Your task to perform on an android device: open app "Messages" (install if not already installed) Image 0: 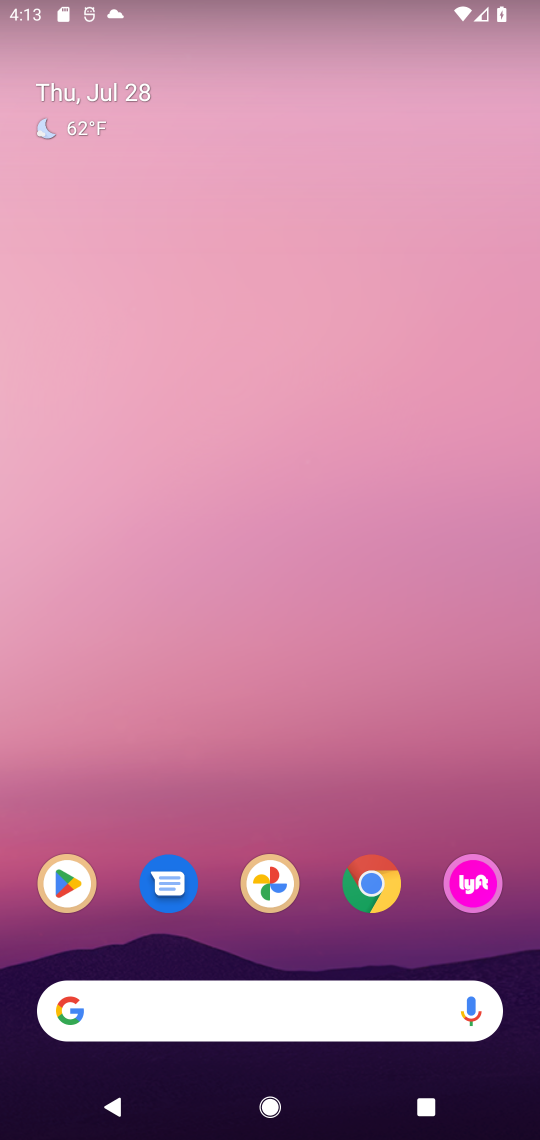
Step 0: drag from (307, 975) to (183, 156)
Your task to perform on an android device: open app "Messages" (install if not already installed) Image 1: 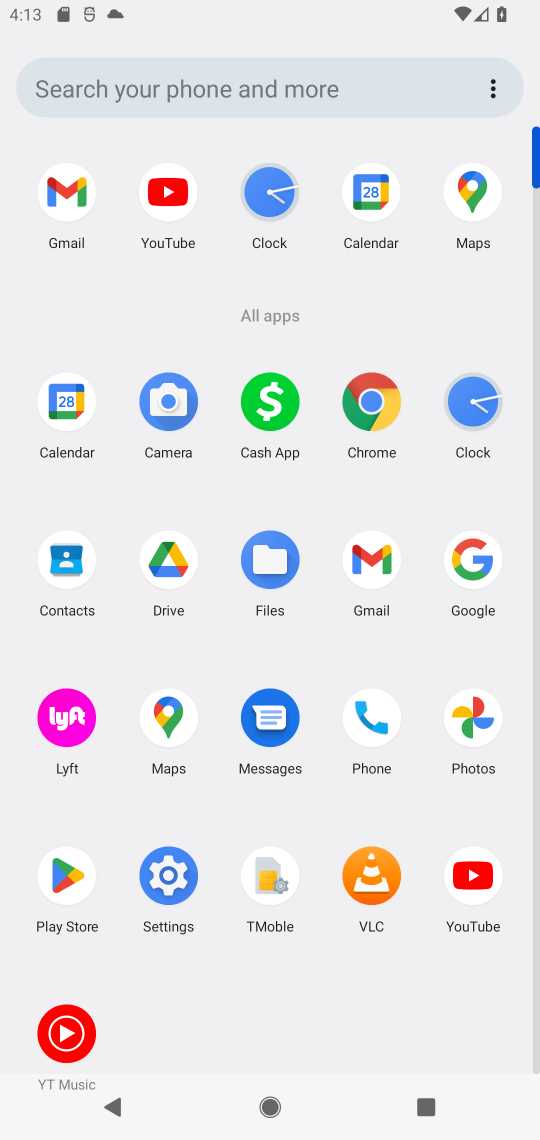
Step 1: click (291, 725)
Your task to perform on an android device: open app "Messages" (install if not already installed) Image 2: 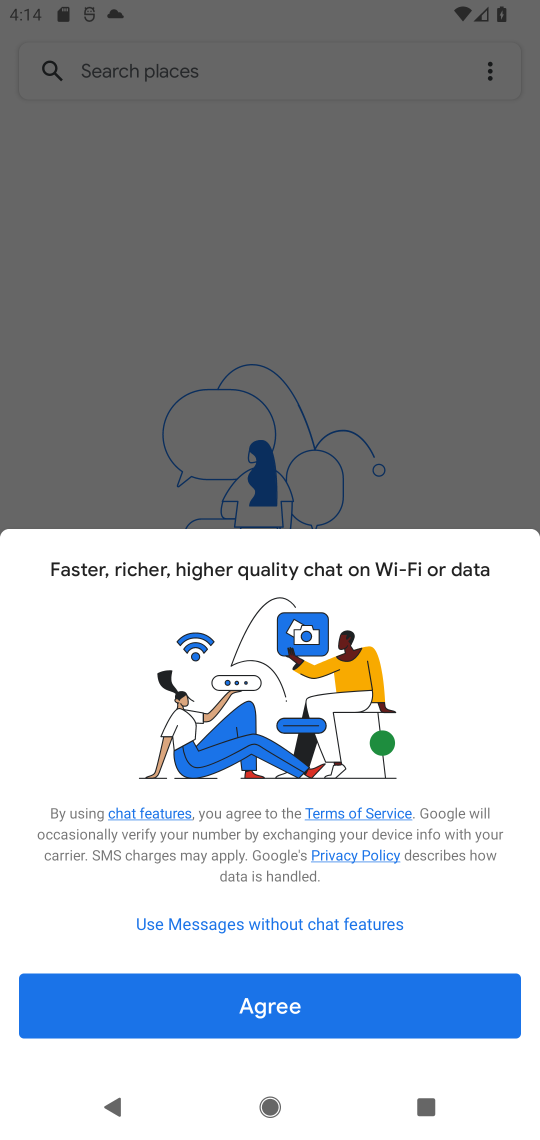
Step 2: click (299, 1024)
Your task to perform on an android device: open app "Messages" (install if not already installed) Image 3: 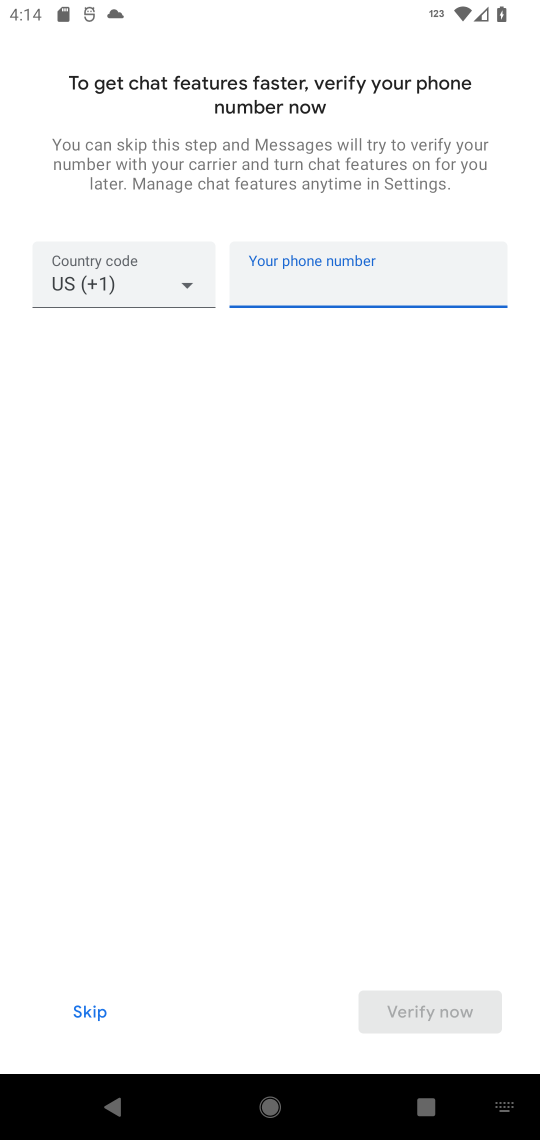
Step 3: click (93, 1009)
Your task to perform on an android device: open app "Messages" (install if not already installed) Image 4: 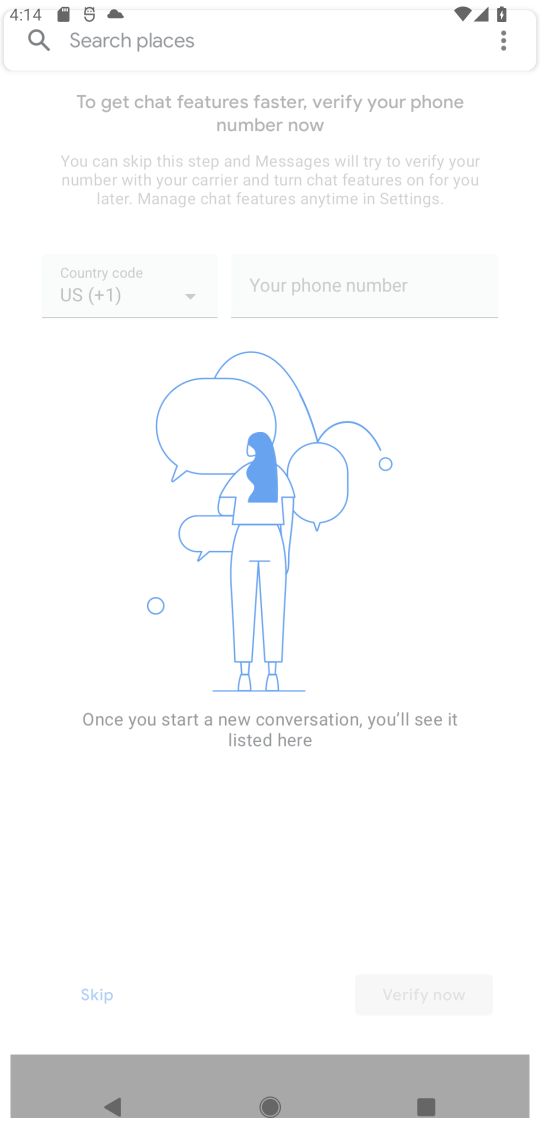
Step 4: task complete